Your task to perform on an android device: Open Google Chrome and click the shortcut for Amazon.com Image 0: 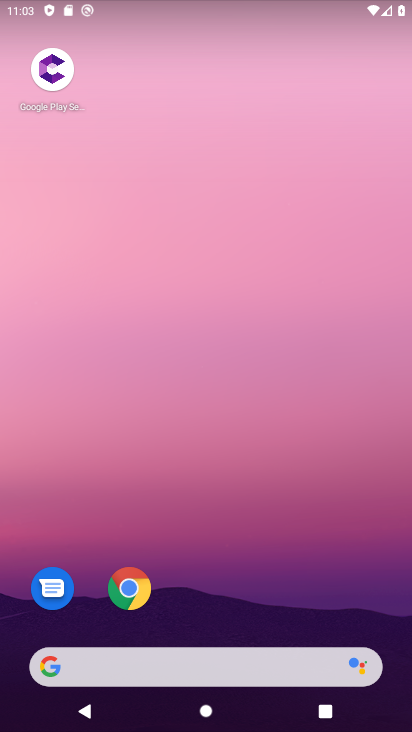
Step 0: press home button
Your task to perform on an android device: Open Google Chrome and click the shortcut for Amazon.com Image 1: 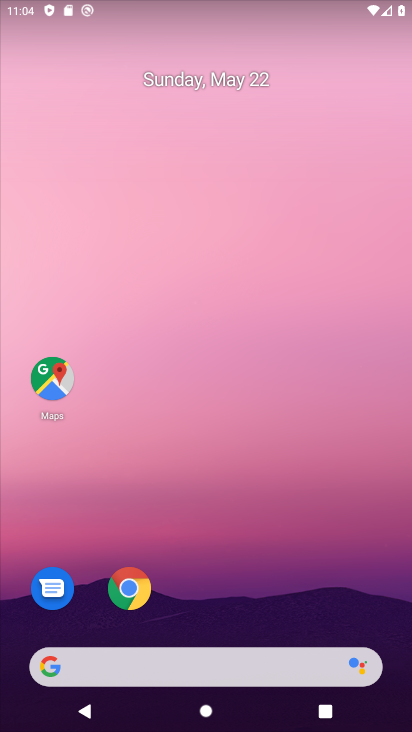
Step 1: drag from (285, 687) to (259, 40)
Your task to perform on an android device: Open Google Chrome and click the shortcut for Amazon.com Image 2: 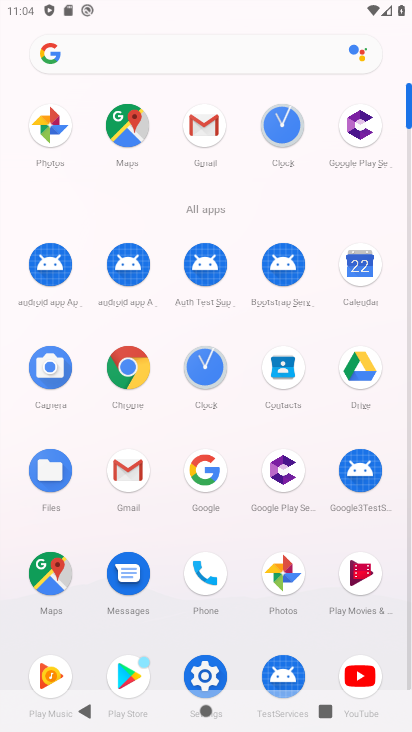
Step 2: click (145, 372)
Your task to perform on an android device: Open Google Chrome and click the shortcut for Amazon.com Image 3: 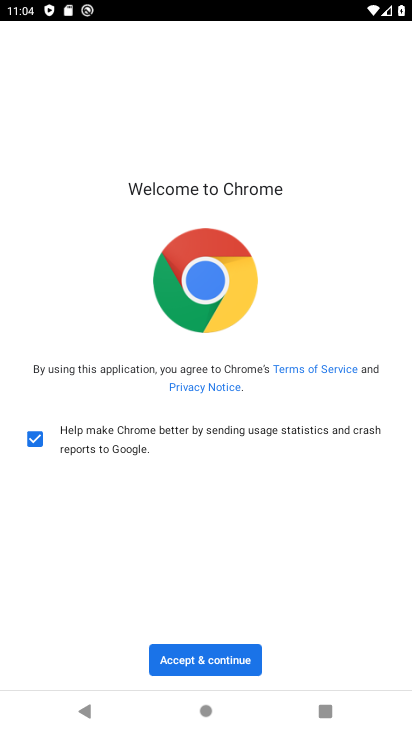
Step 3: click (224, 663)
Your task to perform on an android device: Open Google Chrome and click the shortcut for Amazon.com Image 4: 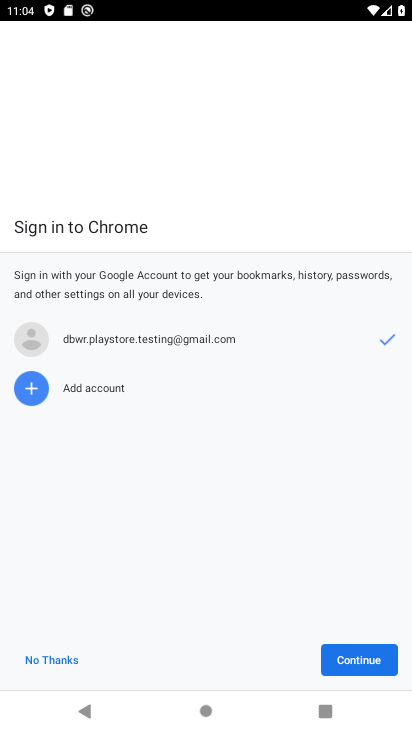
Step 4: click (373, 660)
Your task to perform on an android device: Open Google Chrome and click the shortcut for Amazon.com Image 5: 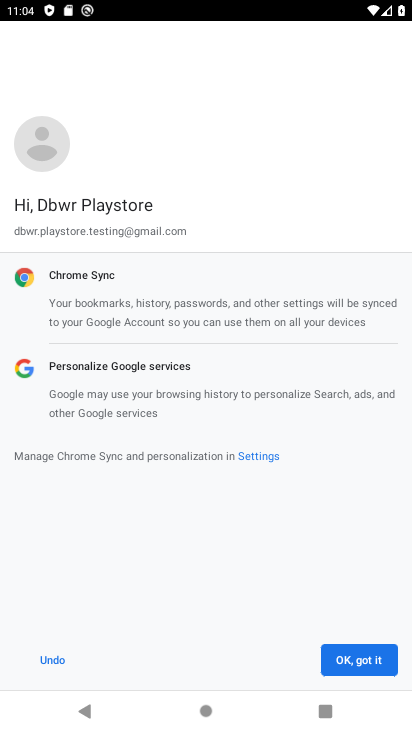
Step 5: click (368, 653)
Your task to perform on an android device: Open Google Chrome and click the shortcut for Amazon.com Image 6: 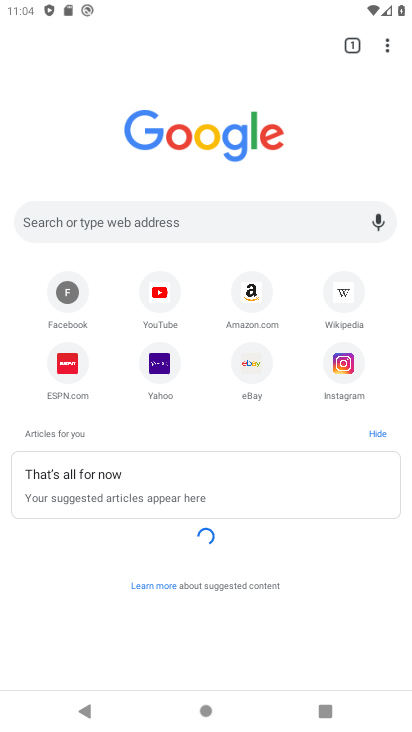
Step 6: click (249, 304)
Your task to perform on an android device: Open Google Chrome and click the shortcut for Amazon.com Image 7: 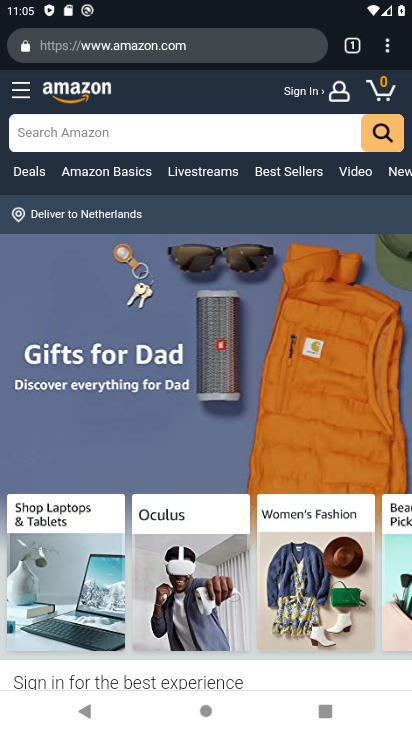
Step 7: click (387, 45)
Your task to perform on an android device: Open Google Chrome and click the shortcut for Amazon.com Image 8: 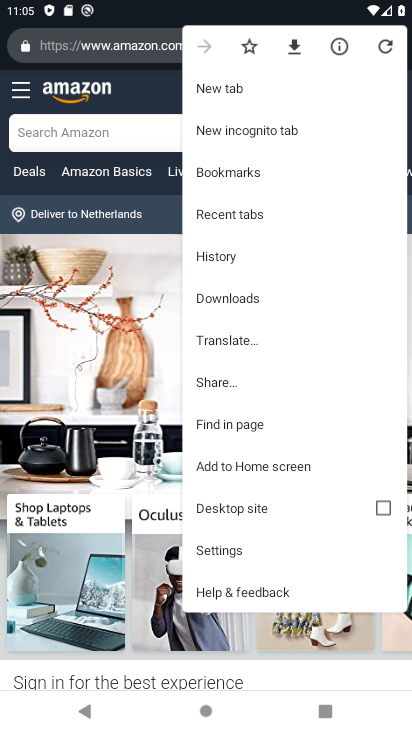
Step 8: click (259, 468)
Your task to perform on an android device: Open Google Chrome and click the shortcut for Amazon.com Image 9: 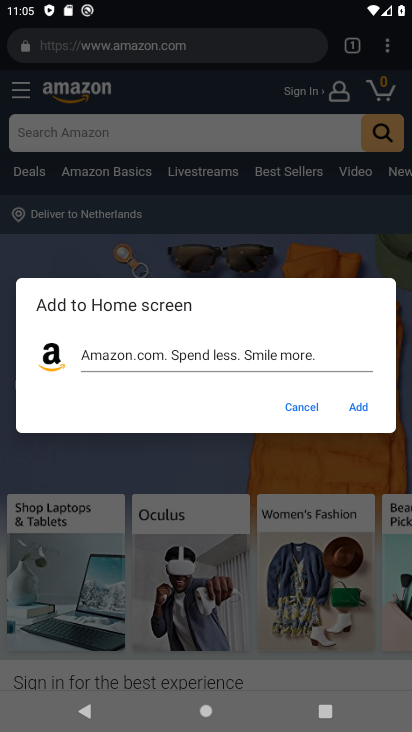
Step 9: click (360, 398)
Your task to perform on an android device: Open Google Chrome and click the shortcut for Amazon.com Image 10: 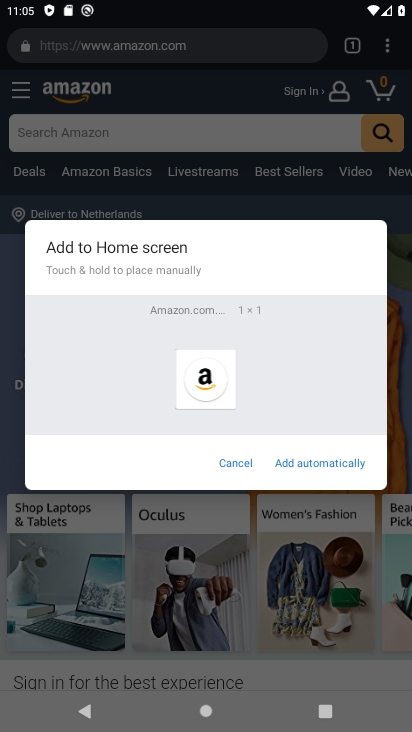
Step 10: click (321, 460)
Your task to perform on an android device: Open Google Chrome and click the shortcut for Amazon.com Image 11: 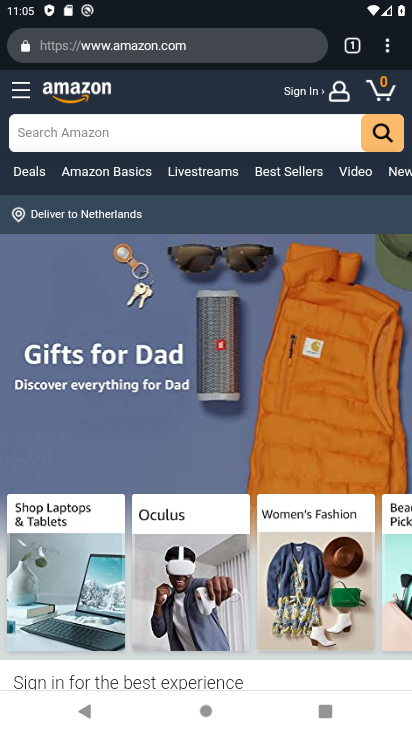
Step 11: task complete